Your task to perform on an android device: Open Android settings Image 0: 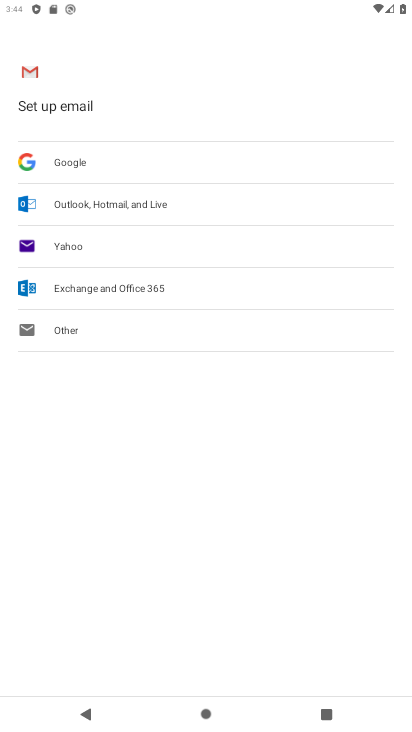
Step 0: press home button
Your task to perform on an android device: Open Android settings Image 1: 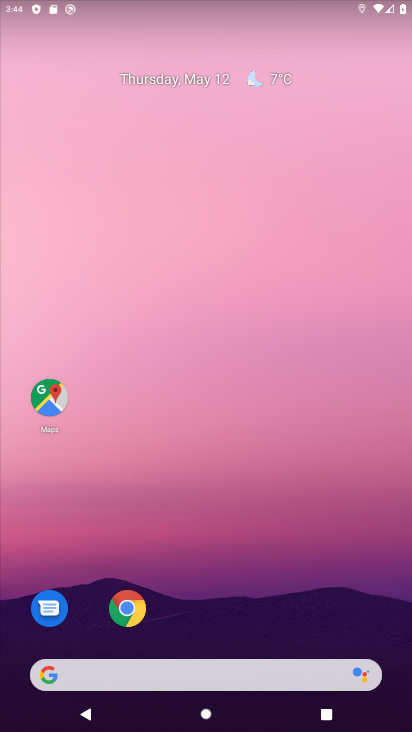
Step 1: drag from (232, 603) to (211, 117)
Your task to perform on an android device: Open Android settings Image 2: 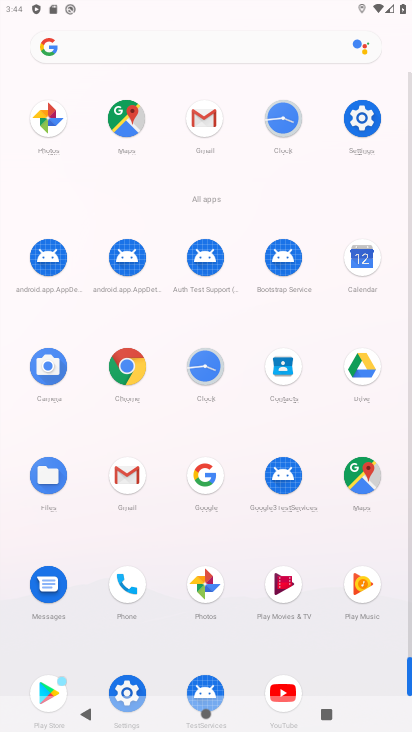
Step 2: drag from (148, 633) to (143, 202)
Your task to perform on an android device: Open Android settings Image 3: 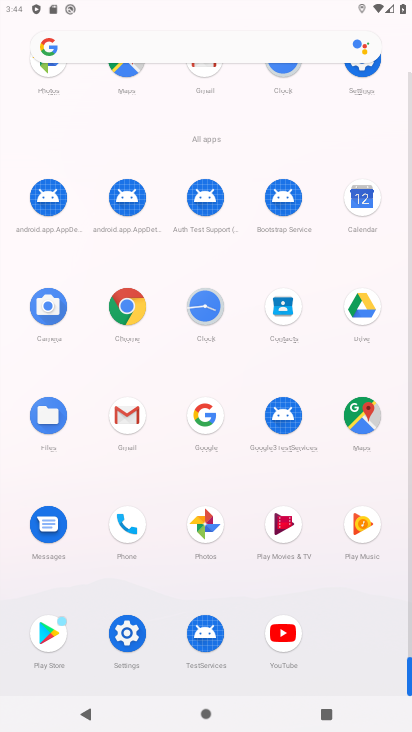
Step 3: click (139, 632)
Your task to perform on an android device: Open Android settings Image 4: 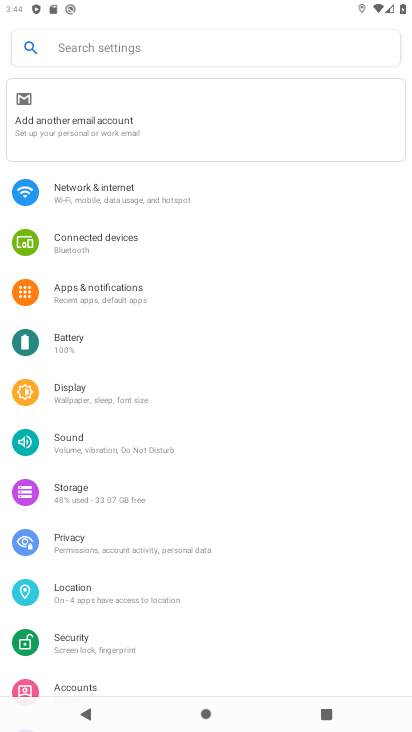
Step 4: drag from (175, 625) to (154, 193)
Your task to perform on an android device: Open Android settings Image 5: 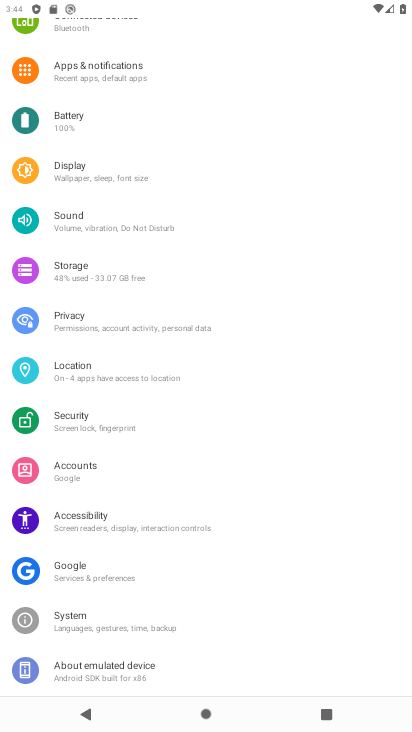
Step 5: click (113, 661)
Your task to perform on an android device: Open Android settings Image 6: 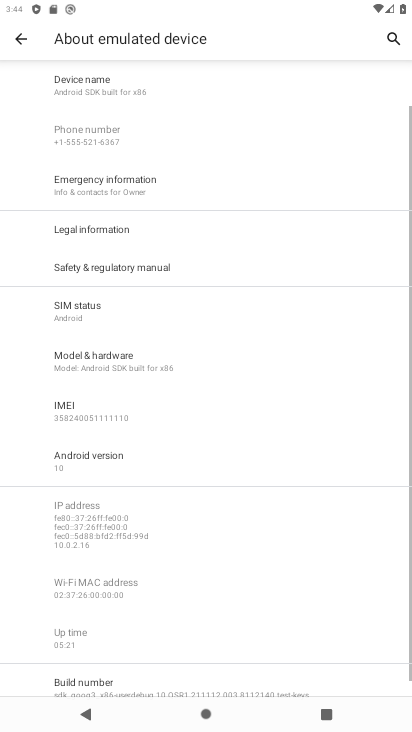
Step 6: click (67, 456)
Your task to perform on an android device: Open Android settings Image 7: 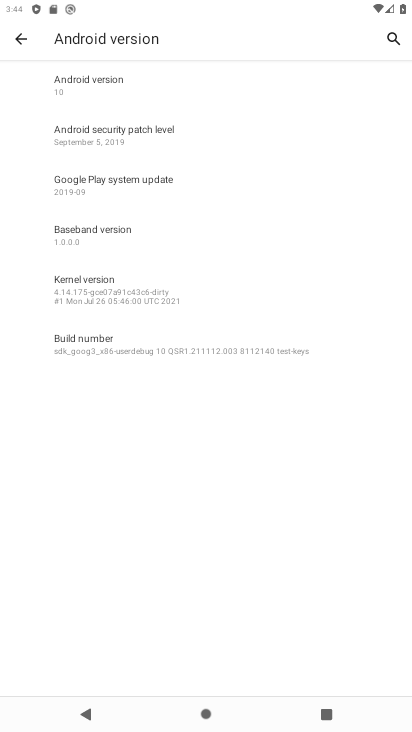
Step 7: task complete